Your task to perform on an android device: Go to battery settings Image 0: 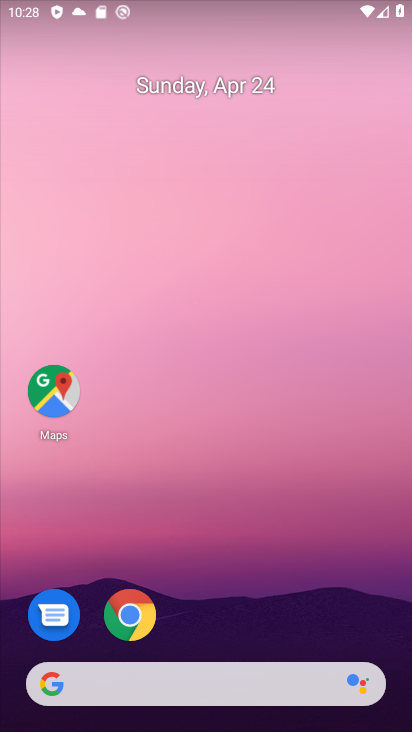
Step 0: drag from (216, 643) to (277, 92)
Your task to perform on an android device: Go to battery settings Image 1: 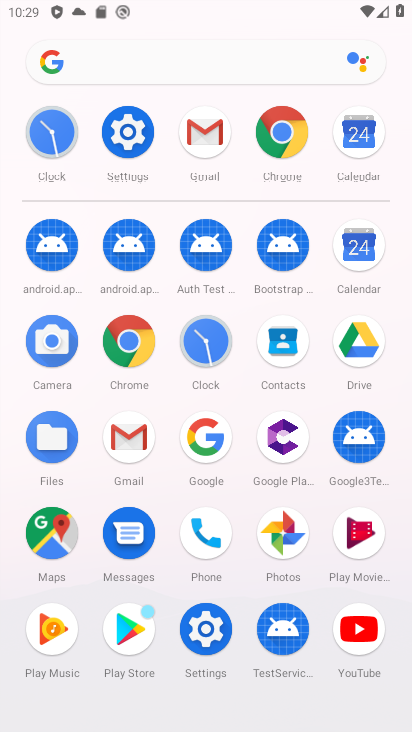
Step 1: click (126, 126)
Your task to perform on an android device: Go to battery settings Image 2: 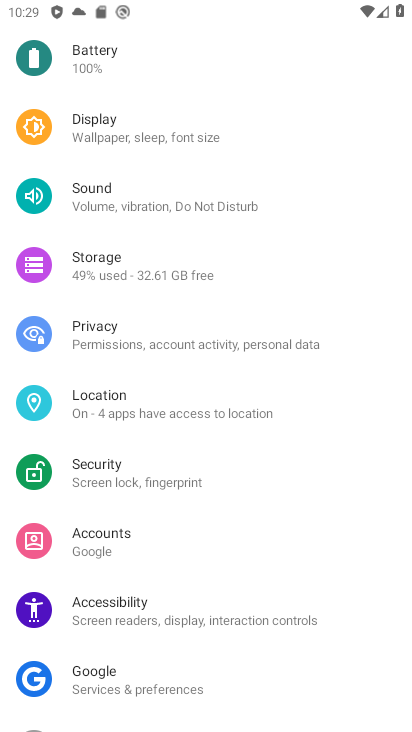
Step 2: click (131, 56)
Your task to perform on an android device: Go to battery settings Image 3: 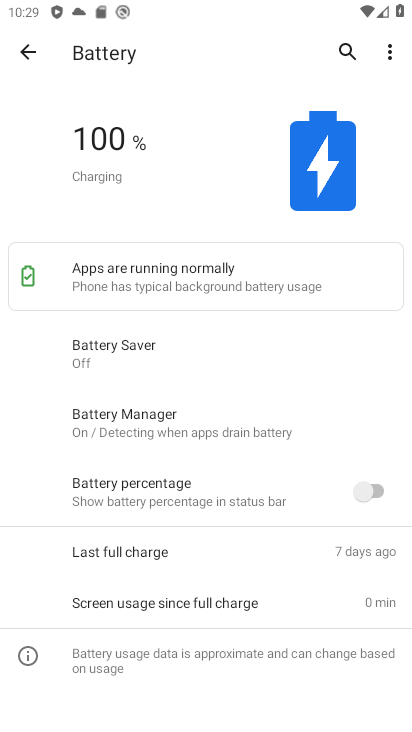
Step 3: task complete